Your task to perform on an android device: What's the weather today? Image 0: 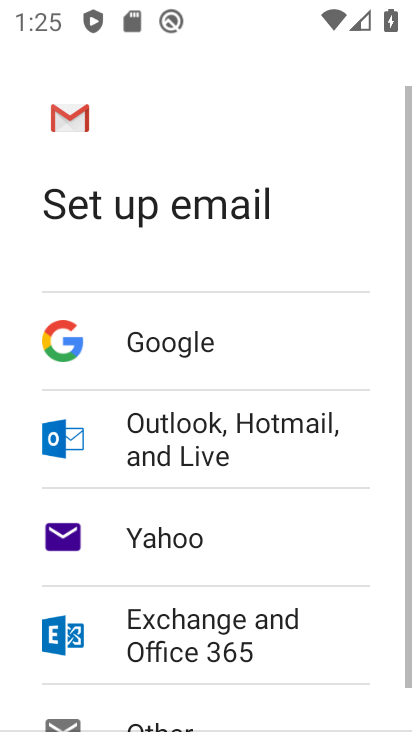
Step 0: drag from (202, 561) to (248, 48)
Your task to perform on an android device: What's the weather today? Image 1: 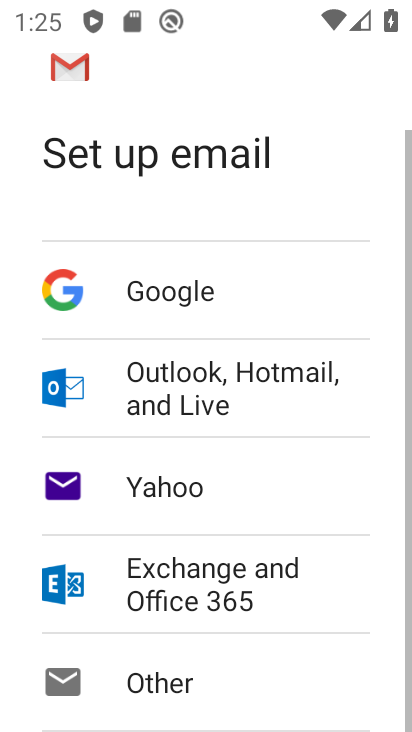
Step 1: drag from (273, 482) to (276, 127)
Your task to perform on an android device: What's the weather today? Image 2: 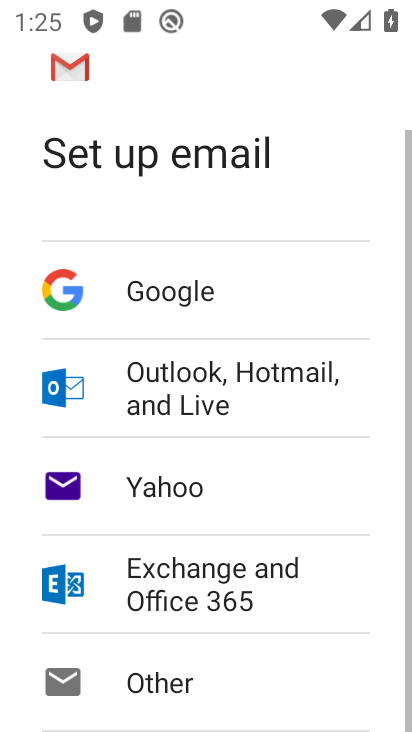
Step 2: press home button
Your task to perform on an android device: What's the weather today? Image 3: 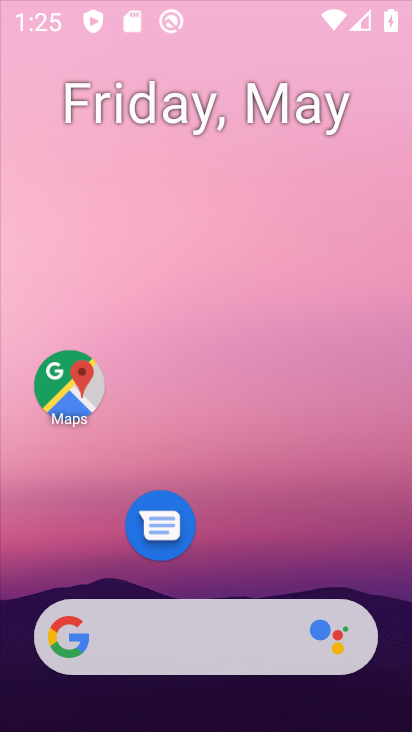
Step 3: drag from (203, 631) to (293, 102)
Your task to perform on an android device: What's the weather today? Image 4: 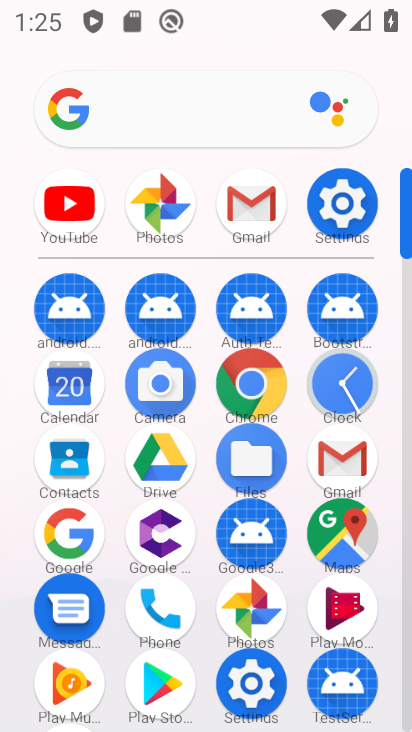
Step 4: click (174, 111)
Your task to perform on an android device: What's the weather today? Image 5: 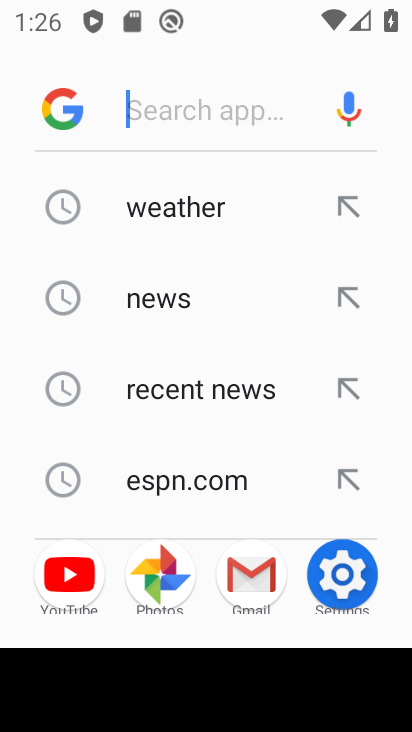
Step 5: type "weather today"
Your task to perform on an android device: What's the weather today? Image 6: 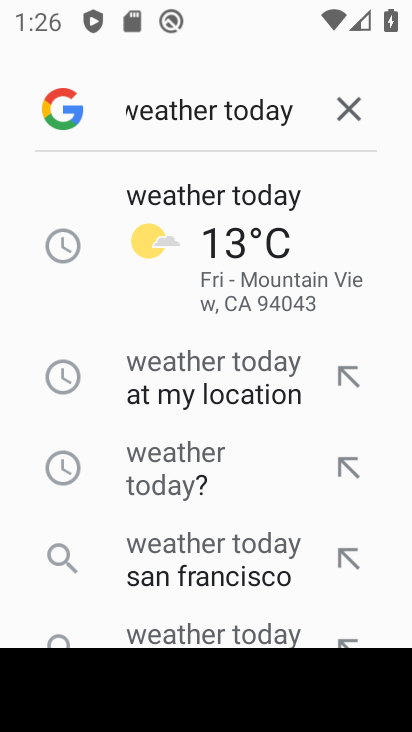
Step 6: click (201, 223)
Your task to perform on an android device: What's the weather today? Image 7: 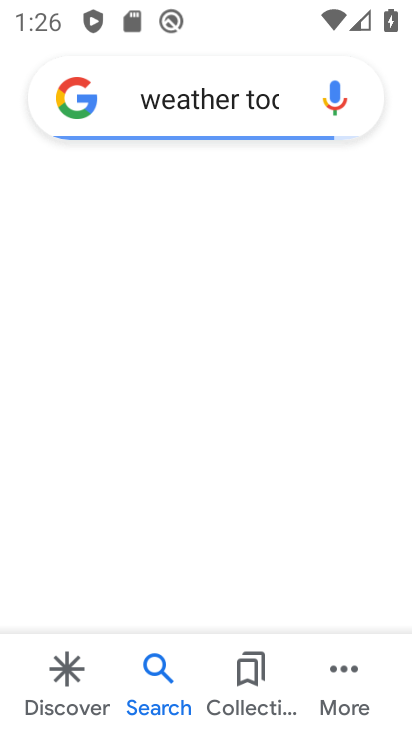
Step 7: task complete